Your task to perform on an android device: delete a single message in the gmail app Image 0: 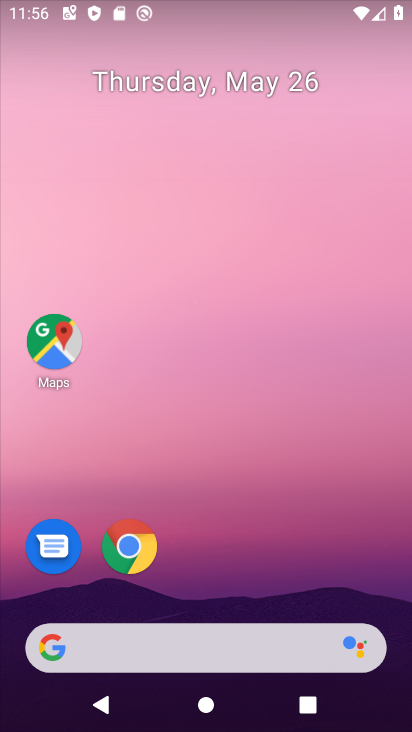
Step 0: drag from (251, 558) to (205, 110)
Your task to perform on an android device: delete a single message in the gmail app Image 1: 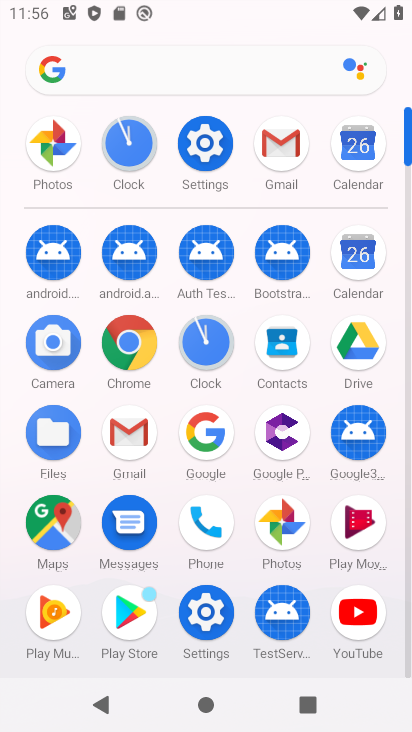
Step 1: click (276, 143)
Your task to perform on an android device: delete a single message in the gmail app Image 2: 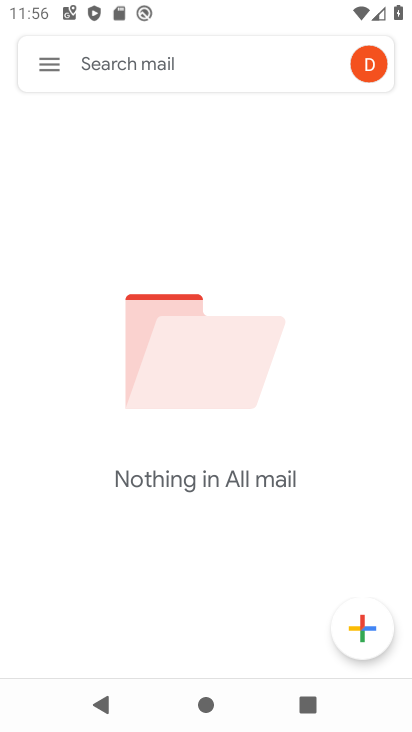
Step 2: task complete